Your task to perform on an android device: change alarm snooze length Image 0: 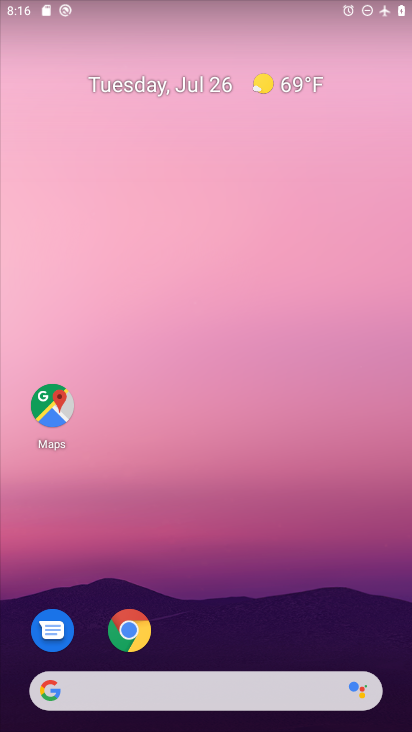
Step 0: drag from (213, 618) to (218, 149)
Your task to perform on an android device: change alarm snooze length Image 1: 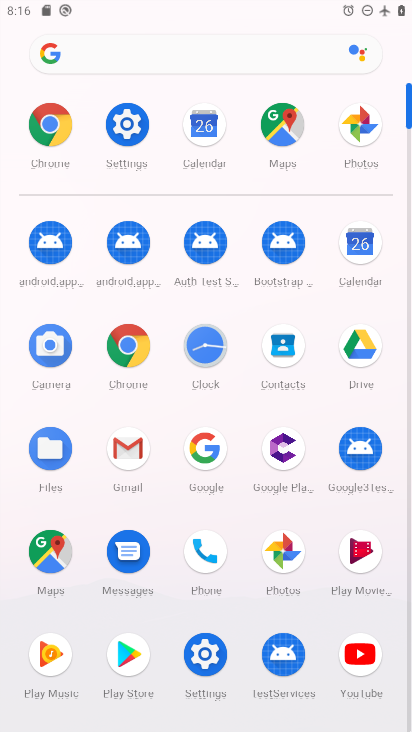
Step 1: click (218, 644)
Your task to perform on an android device: change alarm snooze length Image 2: 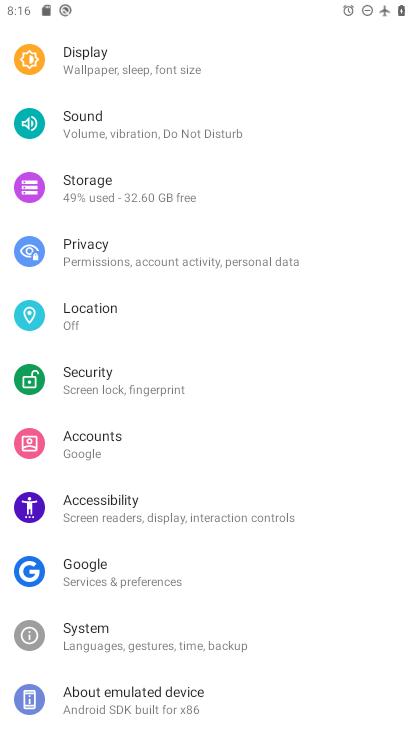
Step 2: press home button
Your task to perform on an android device: change alarm snooze length Image 3: 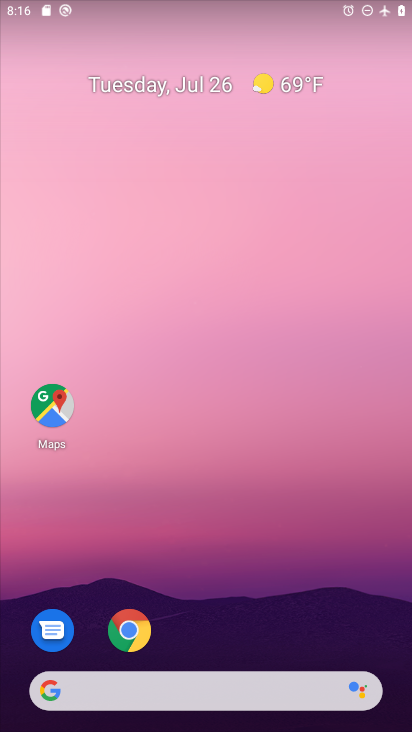
Step 3: drag from (251, 536) to (232, 94)
Your task to perform on an android device: change alarm snooze length Image 4: 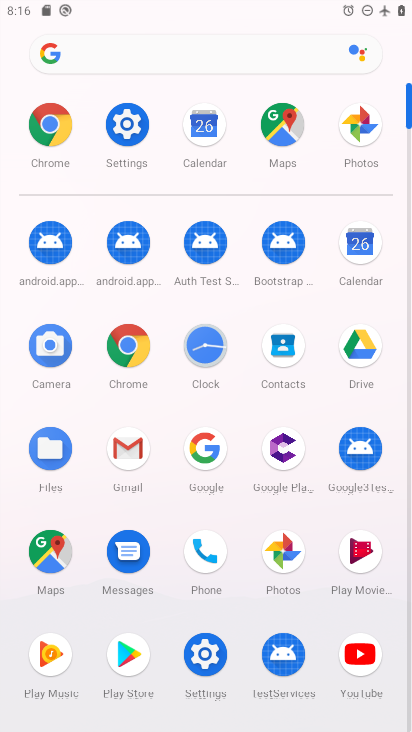
Step 4: click (219, 350)
Your task to perform on an android device: change alarm snooze length Image 5: 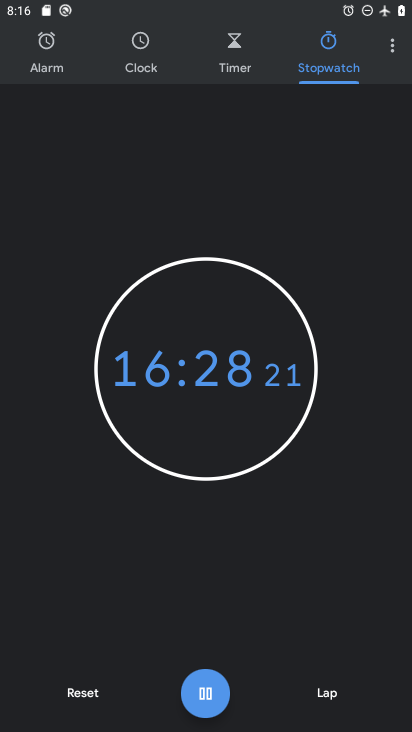
Step 5: click (394, 54)
Your task to perform on an android device: change alarm snooze length Image 6: 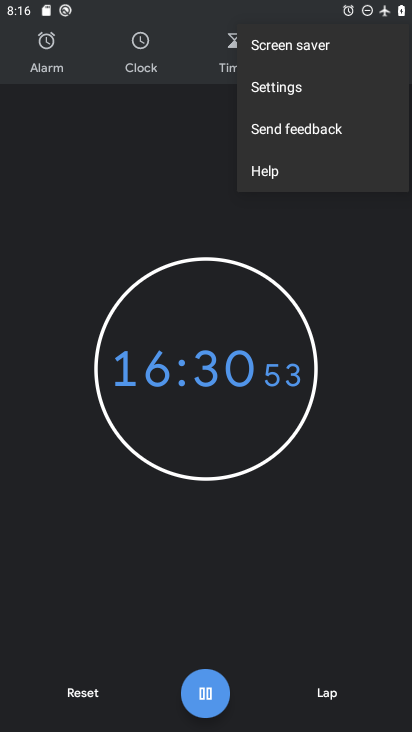
Step 6: click (295, 86)
Your task to perform on an android device: change alarm snooze length Image 7: 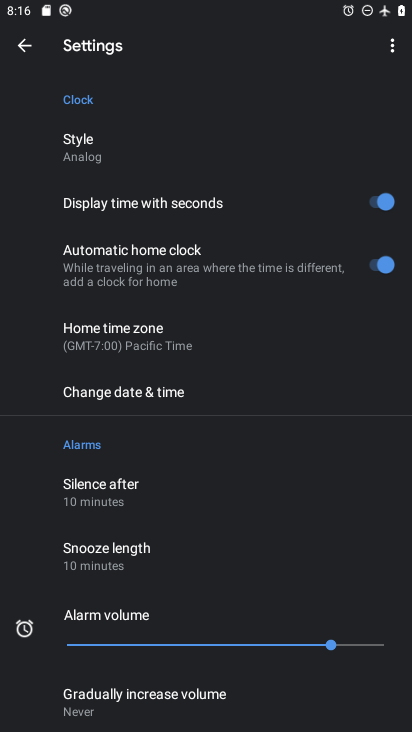
Step 7: click (207, 556)
Your task to perform on an android device: change alarm snooze length Image 8: 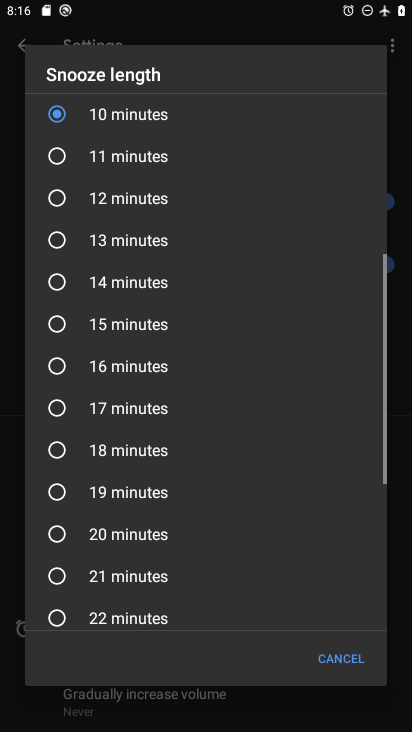
Step 8: click (123, 152)
Your task to perform on an android device: change alarm snooze length Image 9: 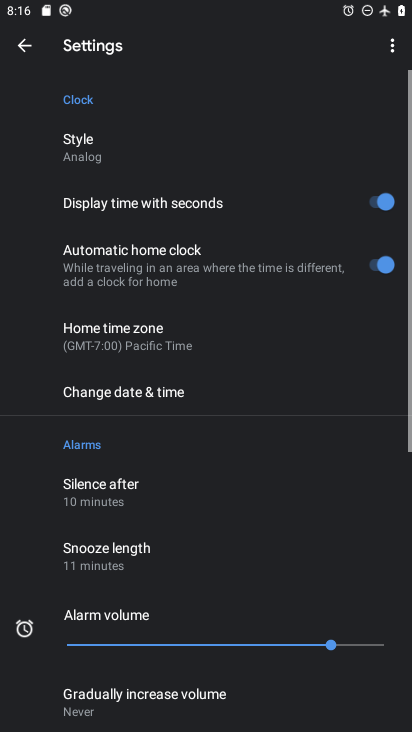
Step 9: task complete